Your task to perform on an android device: Turn off the flashlight Image 0: 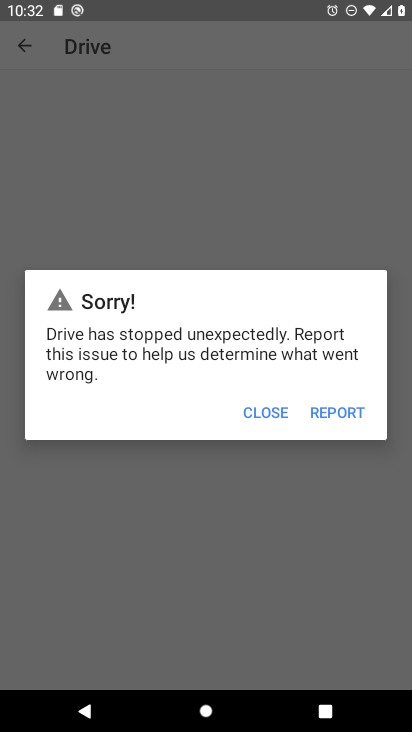
Step 0: press home button
Your task to perform on an android device: Turn off the flashlight Image 1: 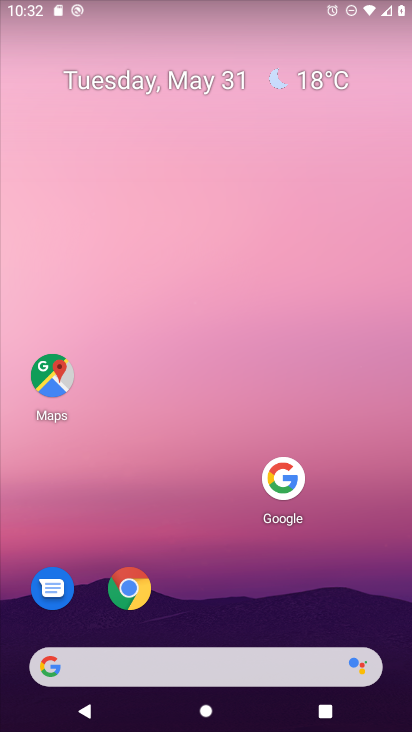
Step 1: task complete